Your task to perform on an android device: turn off airplane mode Image 0: 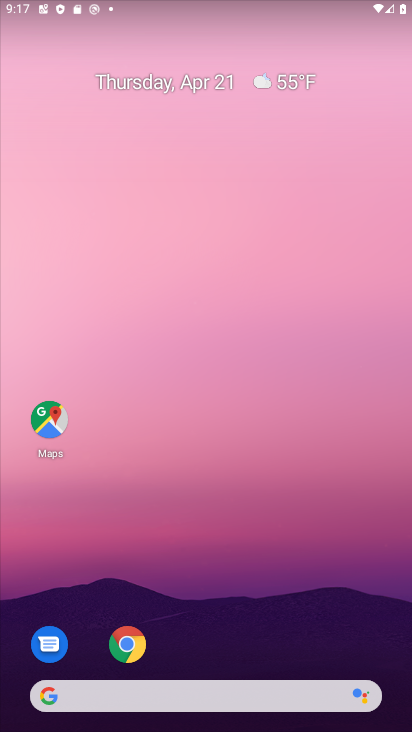
Step 0: drag from (258, 1) to (271, 518)
Your task to perform on an android device: turn off airplane mode Image 1: 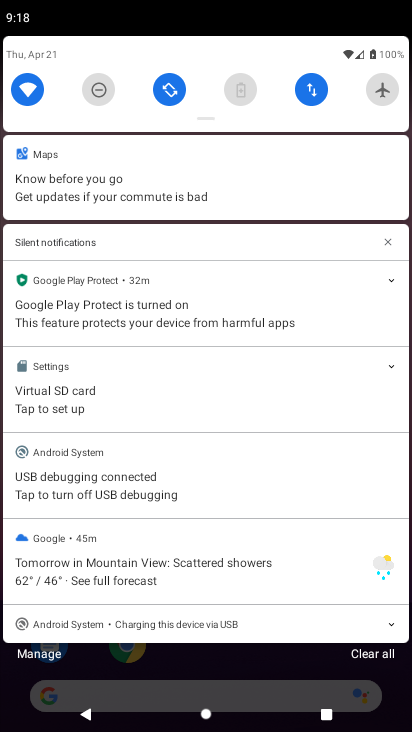
Step 1: task complete